Your task to perform on an android device: delete the emails in spam in the gmail app Image 0: 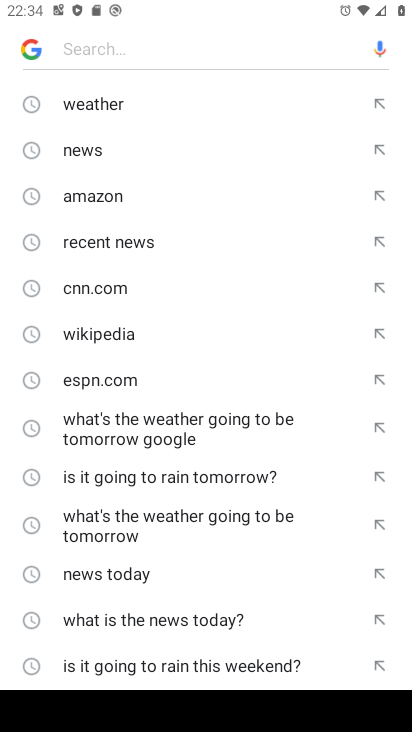
Step 0: press home button
Your task to perform on an android device: delete the emails in spam in the gmail app Image 1: 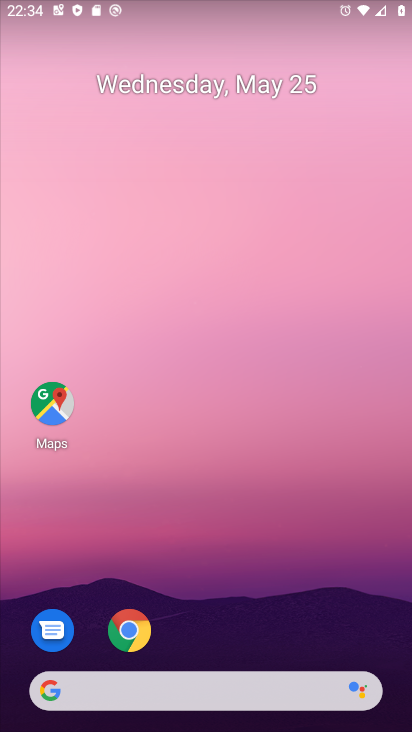
Step 1: drag from (226, 629) to (232, 198)
Your task to perform on an android device: delete the emails in spam in the gmail app Image 2: 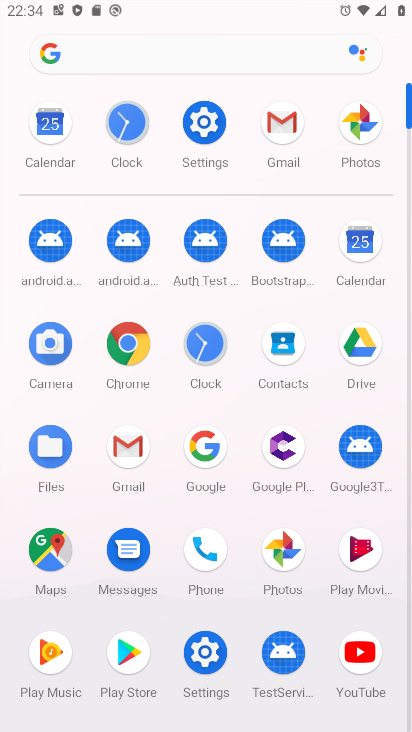
Step 2: click (274, 137)
Your task to perform on an android device: delete the emails in spam in the gmail app Image 3: 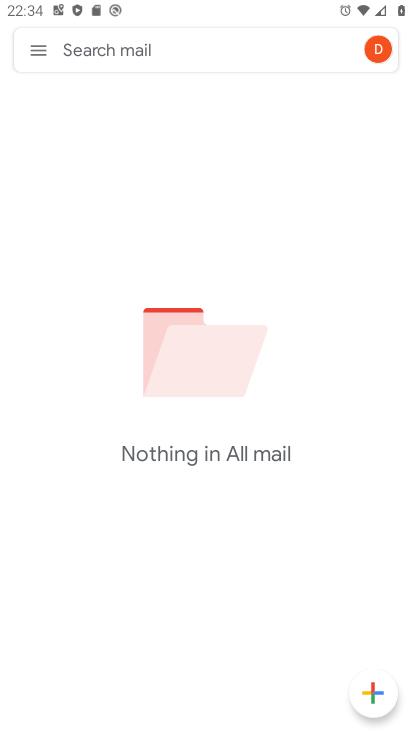
Step 3: click (38, 57)
Your task to perform on an android device: delete the emails in spam in the gmail app Image 4: 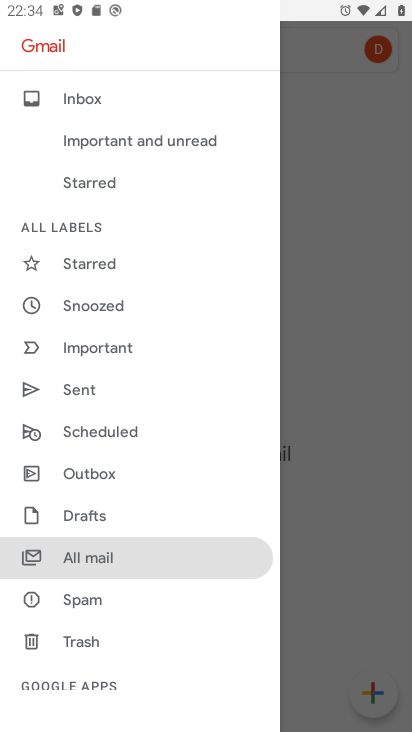
Step 4: click (110, 591)
Your task to perform on an android device: delete the emails in spam in the gmail app Image 5: 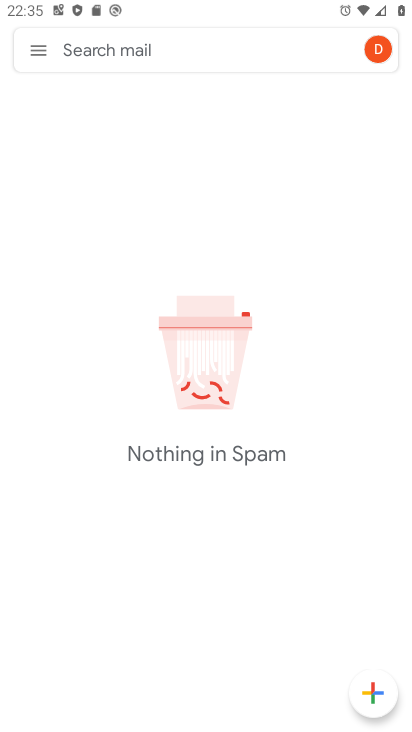
Step 5: task complete